Your task to perform on an android device: delete the emails in spam in the gmail app Image 0: 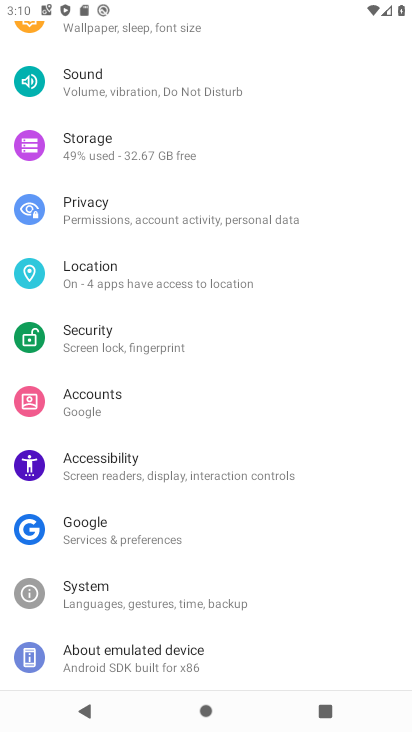
Step 0: drag from (317, 600) to (305, 284)
Your task to perform on an android device: delete the emails in spam in the gmail app Image 1: 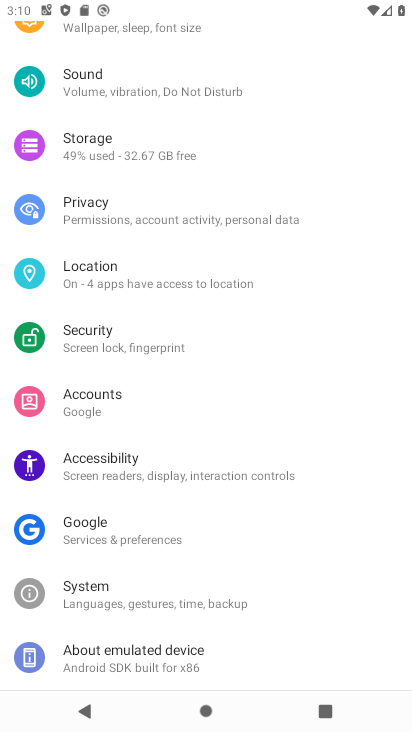
Step 1: press home button
Your task to perform on an android device: delete the emails in spam in the gmail app Image 2: 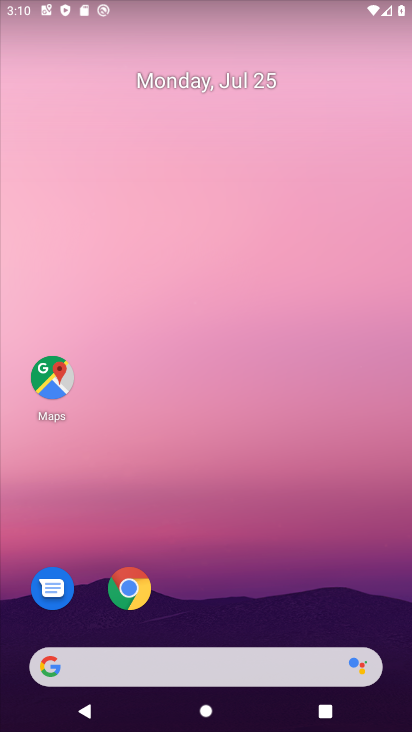
Step 2: drag from (339, 560) to (301, 46)
Your task to perform on an android device: delete the emails in spam in the gmail app Image 3: 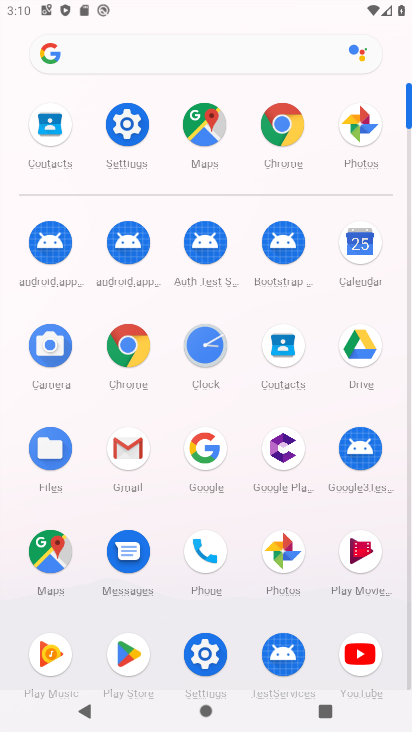
Step 3: click (126, 458)
Your task to perform on an android device: delete the emails in spam in the gmail app Image 4: 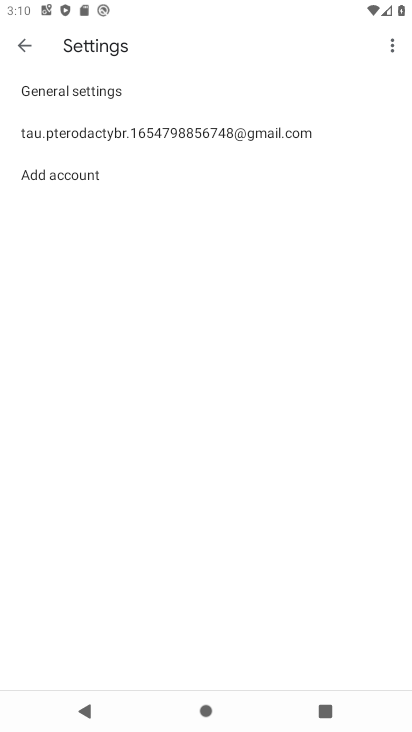
Step 4: click (29, 53)
Your task to perform on an android device: delete the emails in spam in the gmail app Image 5: 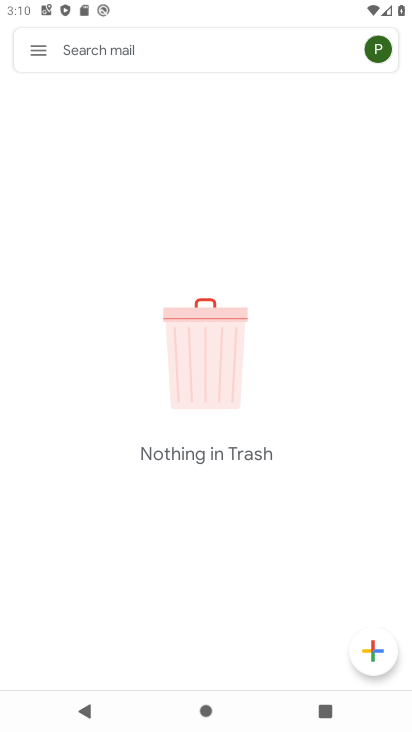
Step 5: click (44, 57)
Your task to perform on an android device: delete the emails in spam in the gmail app Image 6: 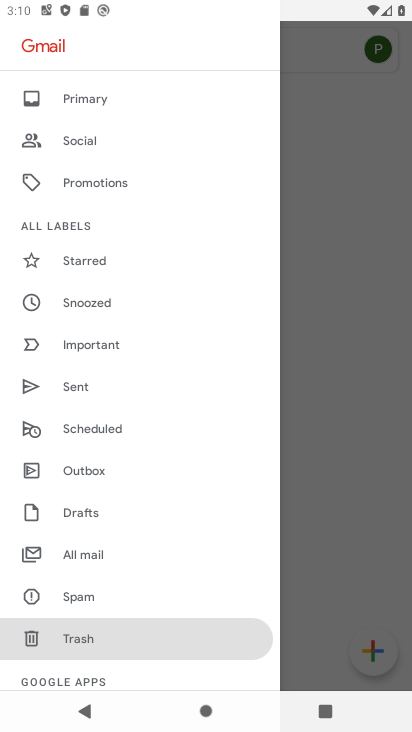
Step 6: click (87, 582)
Your task to perform on an android device: delete the emails in spam in the gmail app Image 7: 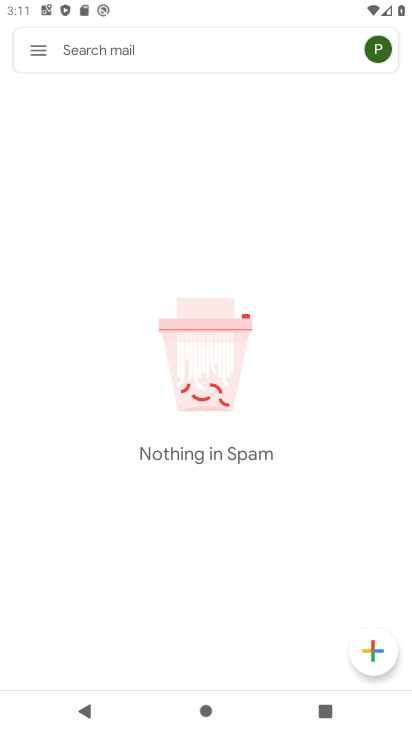
Step 7: task complete